Your task to perform on an android device: toggle improve location accuracy Image 0: 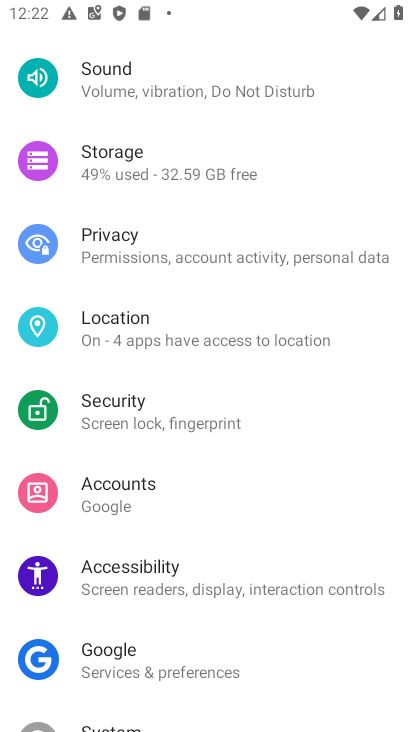
Step 0: click (199, 354)
Your task to perform on an android device: toggle improve location accuracy Image 1: 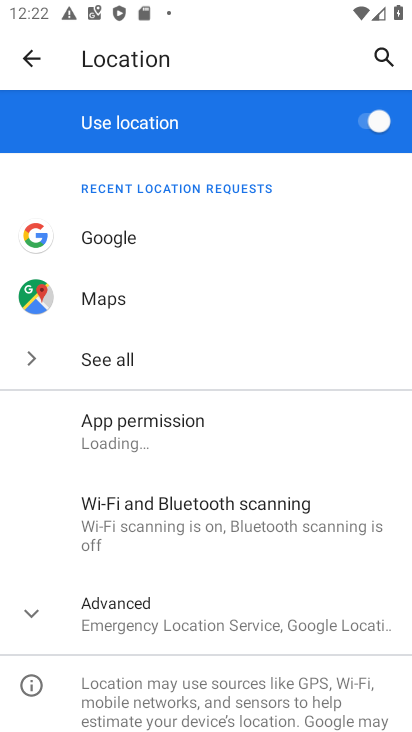
Step 1: click (212, 578)
Your task to perform on an android device: toggle improve location accuracy Image 2: 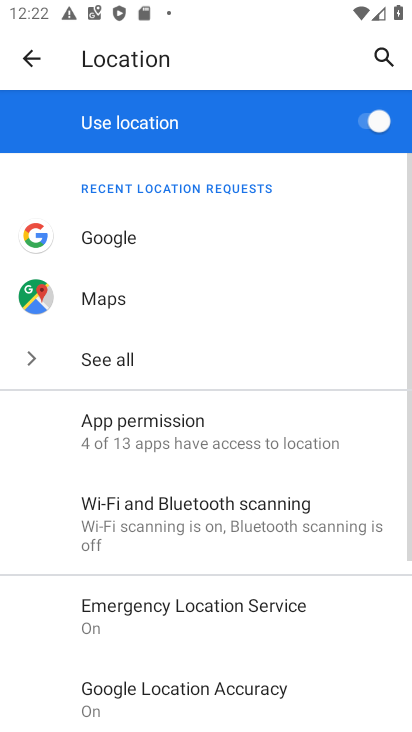
Step 2: drag from (242, 622) to (244, 327)
Your task to perform on an android device: toggle improve location accuracy Image 3: 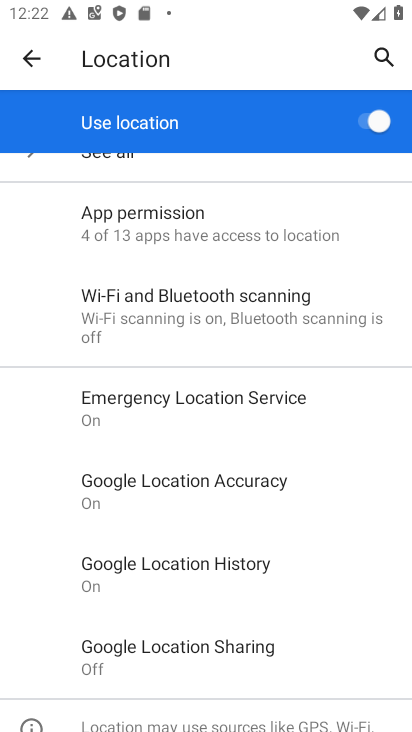
Step 3: click (230, 476)
Your task to perform on an android device: toggle improve location accuracy Image 4: 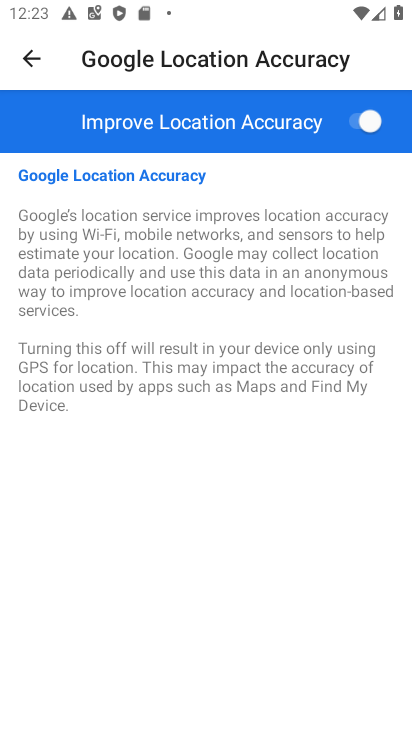
Step 4: click (362, 123)
Your task to perform on an android device: toggle improve location accuracy Image 5: 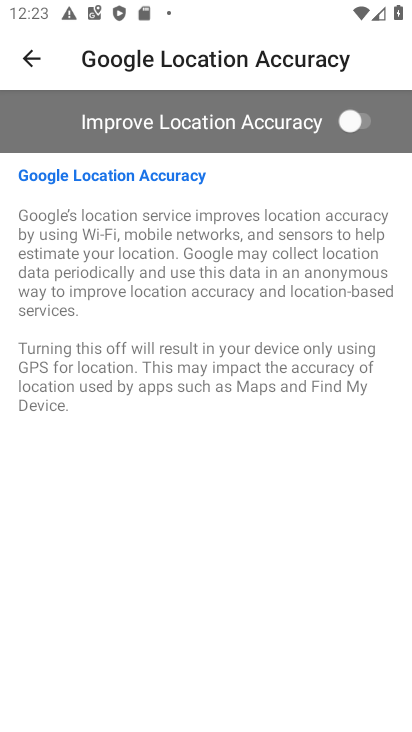
Step 5: task complete